Your task to perform on an android device: change the clock display to digital Image 0: 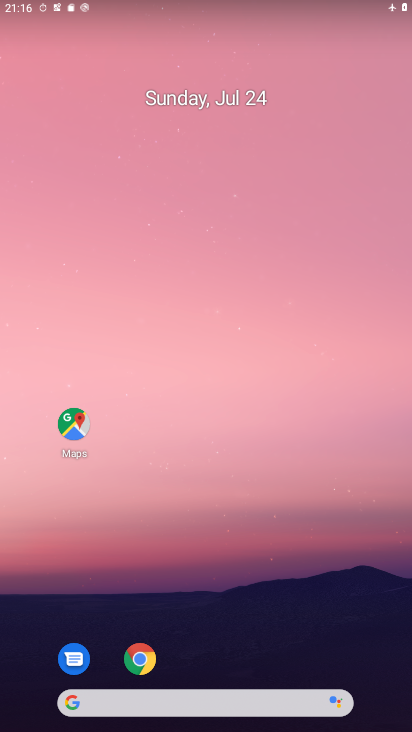
Step 0: drag from (189, 728) to (138, 9)
Your task to perform on an android device: change the clock display to digital Image 1: 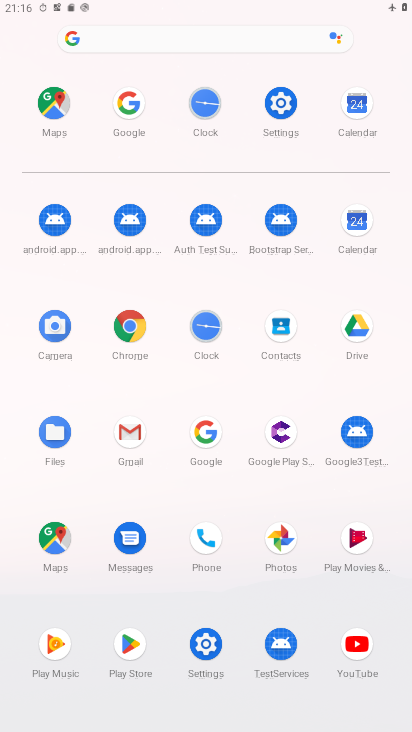
Step 1: click (209, 327)
Your task to perform on an android device: change the clock display to digital Image 2: 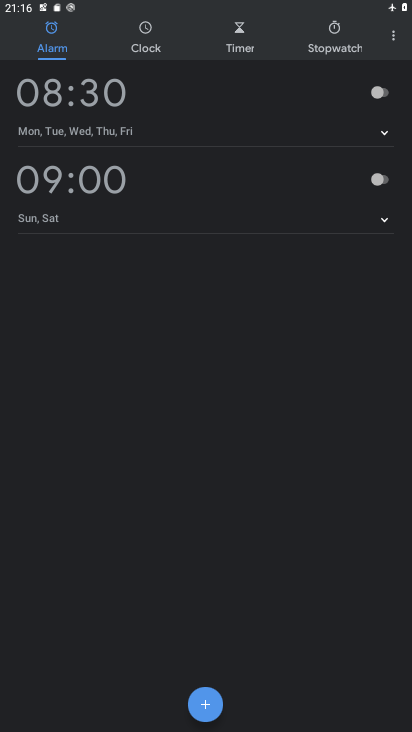
Step 2: click (393, 38)
Your task to perform on an android device: change the clock display to digital Image 3: 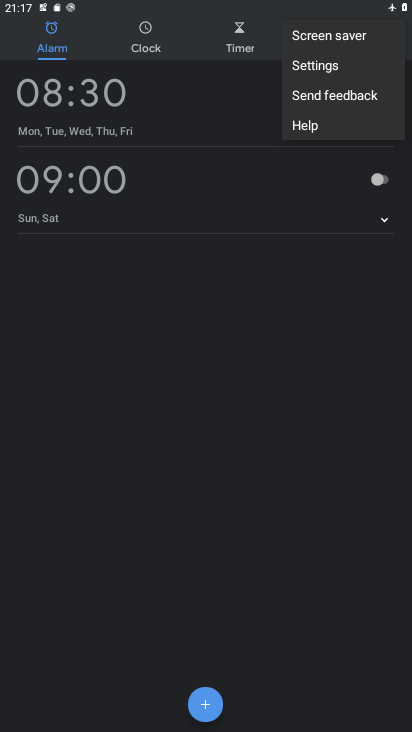
Step 3: click (317, 64)
Your task to perform on an android device: change the clock display to digital Image 4: 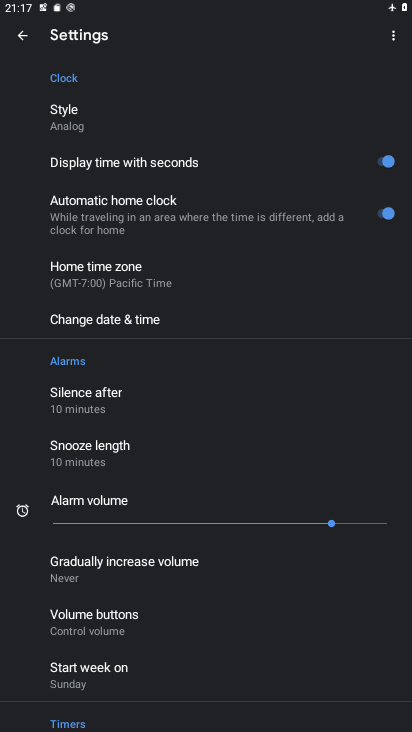
Step 4: click (68, 108)
Your task to perform on an android device: change the clock display to digital Image 5: 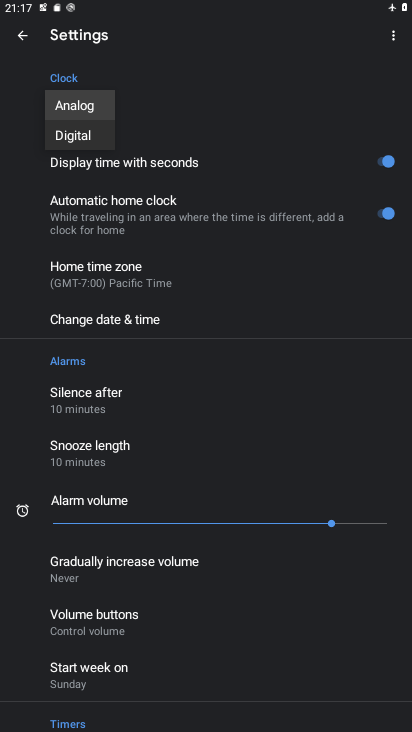
Step 5: click (80, 138)
Your task to perform on an android device: change the clock display to digital Image 6: 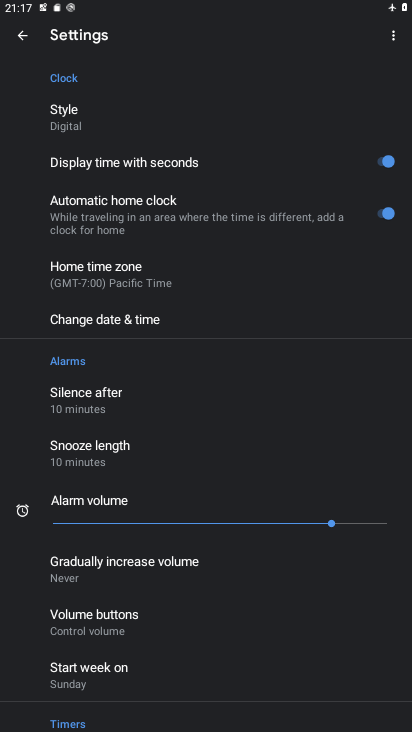
Step 6: task complete